Your task to perform on an android device: allow notifications from all sites in the chrome app Image 0: 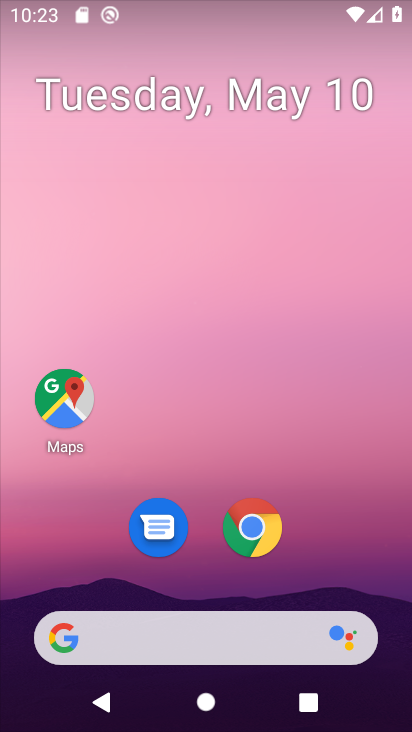
Step 0: click (267, 539)
Your task to perform on an android device: allow notifications from all sites in the chrome app Image 1: 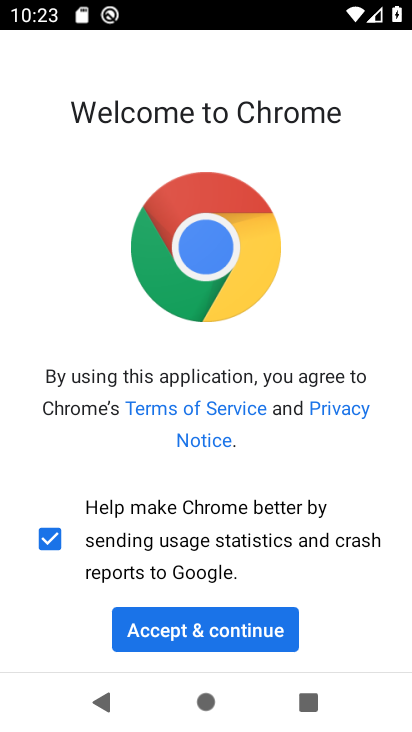
Step 1: click (172, 624)
Your task to perform on an android device: allow notifications from all sites in the chrome app Image 2: 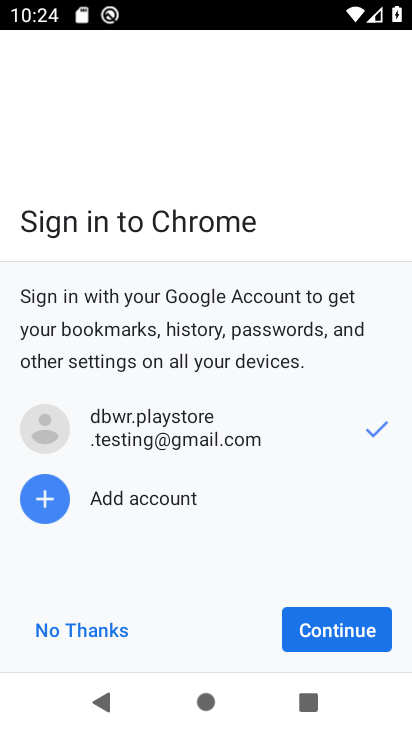
Step 2: click (318, 629)
Your task to perform on an android device: allow notifications from all sites in the chrome app Image 3: 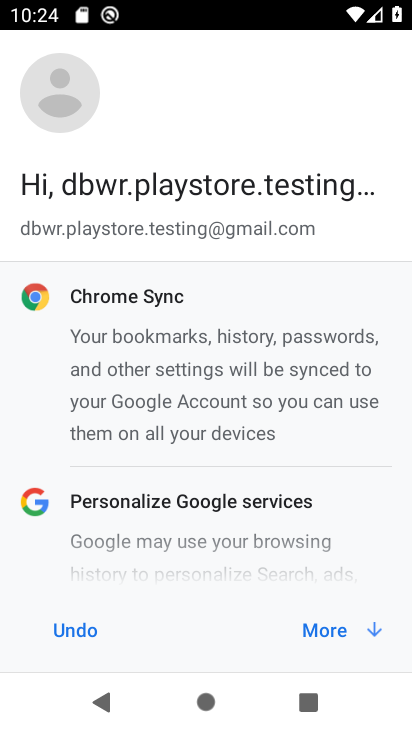
Step 3: click (337, 633)
Your task to perform on an android device: allow notifications from all sites in the chrome app Image 4: 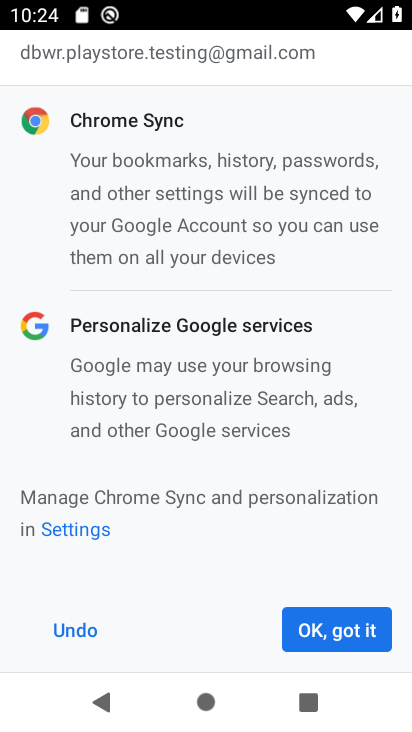
Step 4: click (337, 633)
Your task to perform on an android device: allow notifications from all sites in the chrome app Image 5: 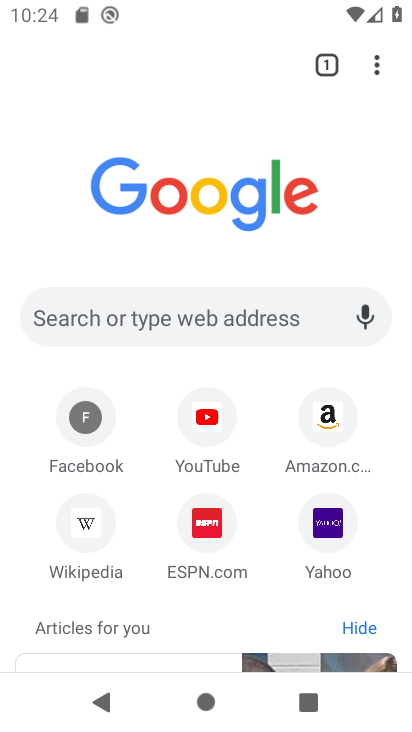
Step 5: press home button
Your task to perform on an android device: allow notifications from all sites in the chrome app Image 6: 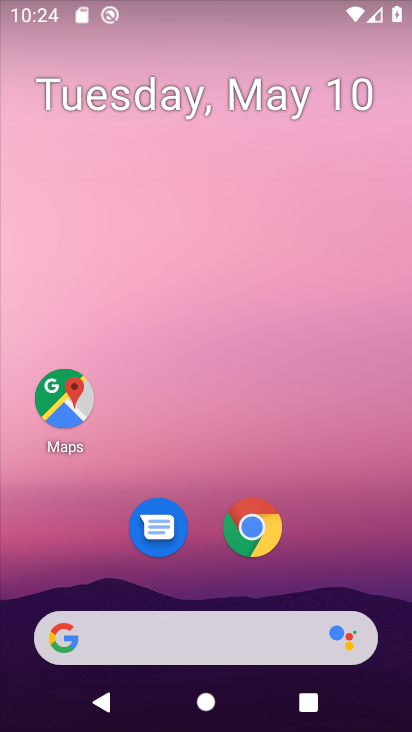
Step 6: click (263, 542)
Your task to perform on an android device: allow notifications from all sites in the chrome app Image 7: 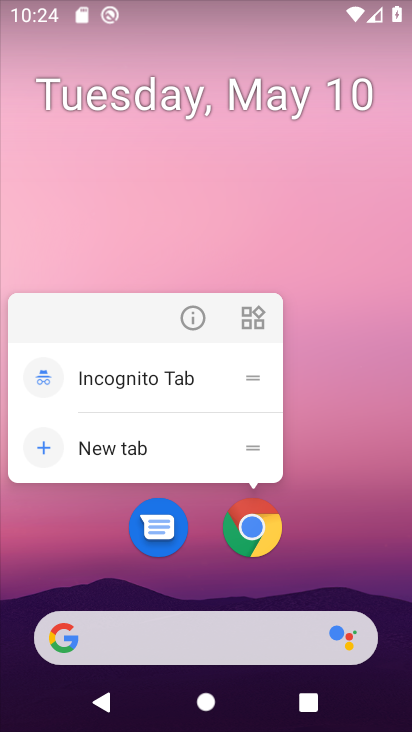
Step 7: click (197, 322)
Your task to perform on an android device: allow notifications from all sites in the chrome app Image 8: 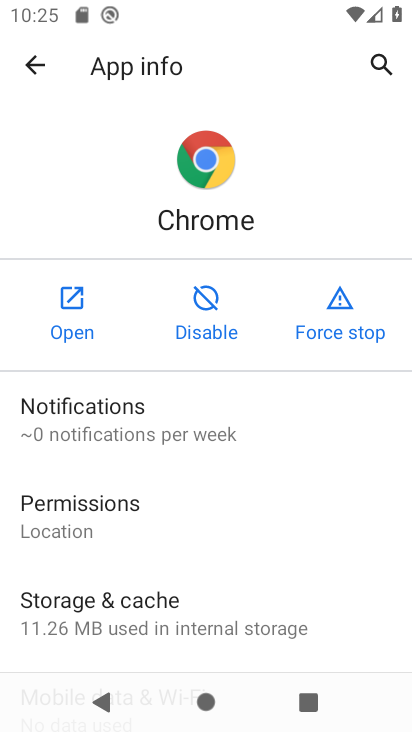
Step 8: click (127, 430)
Your task to perform on an android device: allow notifications from all sites in the chrome app Image 9: 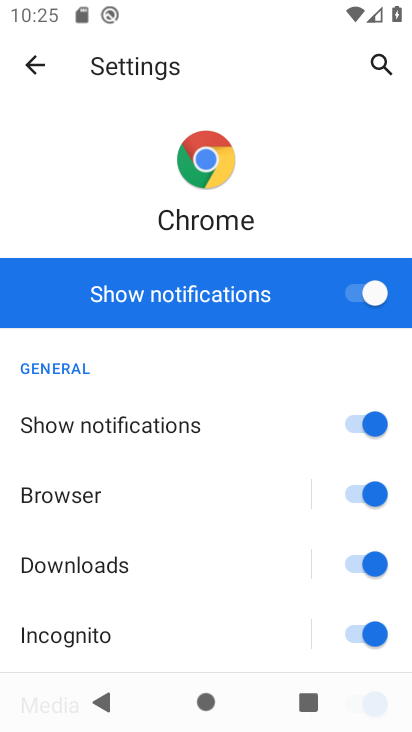
Step 9: task complete